Your task to perform on an android device: Go to accessibility settings Image 0: 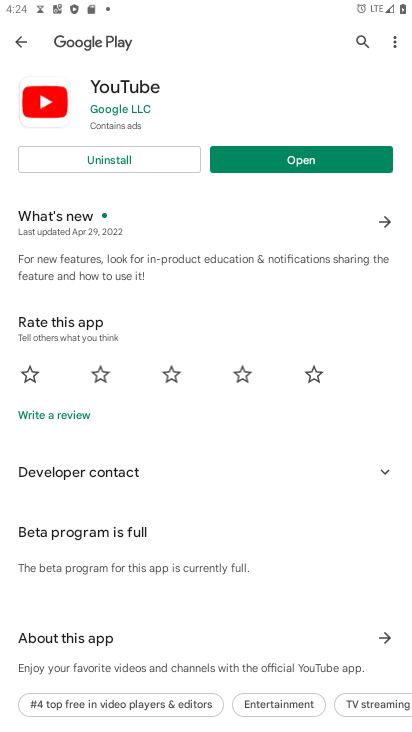
Step 0: press back button
Your task to perform on an android device: Go to accessibility settings Image 1: 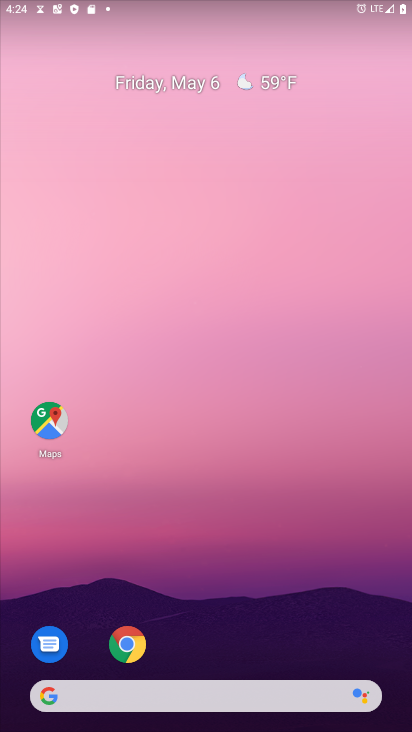
Step 1: drag from (254, 611) to (239, 27)
Your task to perform on an android device: Go to accessibility settings Image 2: 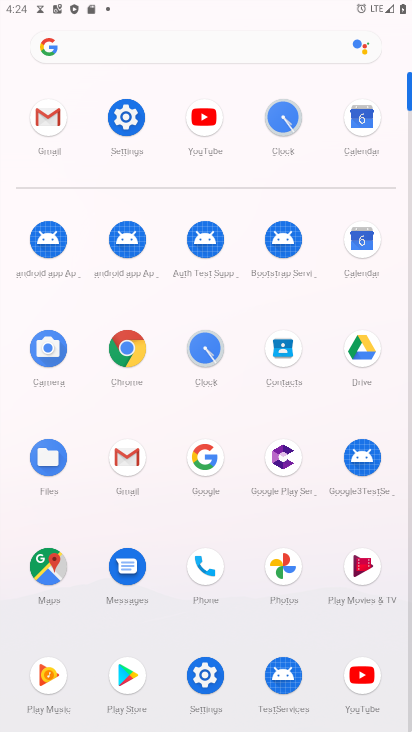
Step 2: click (130, 114)
Your task to perform on an android device: Go to accessibility settings Image 3: 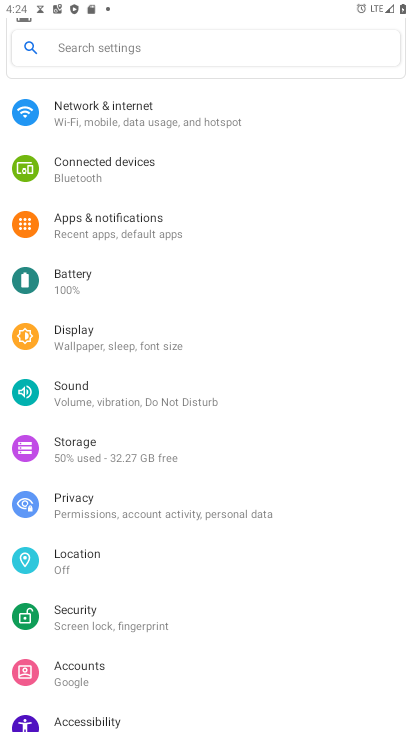
Step 3: drag from (122, 581) to (145, 460)
Your task to perform on an android device: Go to accessibility settings Image 4: 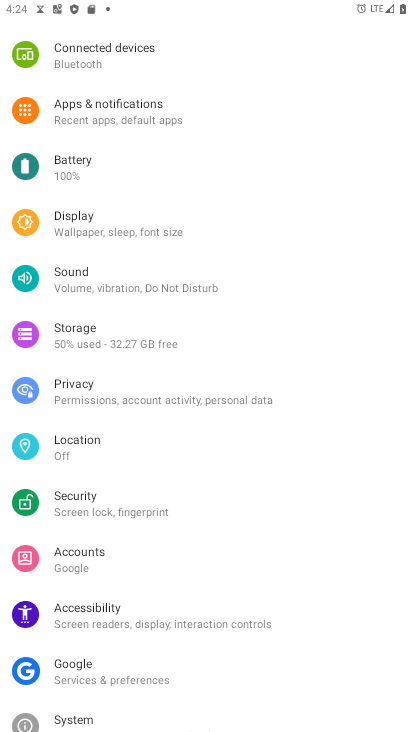
Step 4: click (77, 604)
Your task to perform on an android device: Go to accessibility settings Image 5: 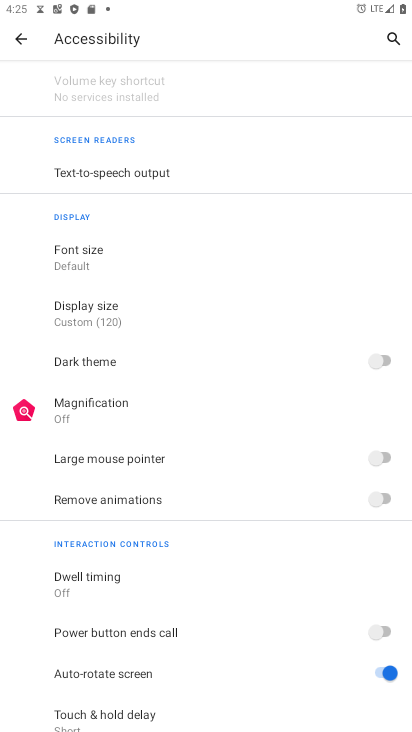
Step 5: task complete